Your task to perform on an android device: install app "WhatsApp Messenger" Image 0: 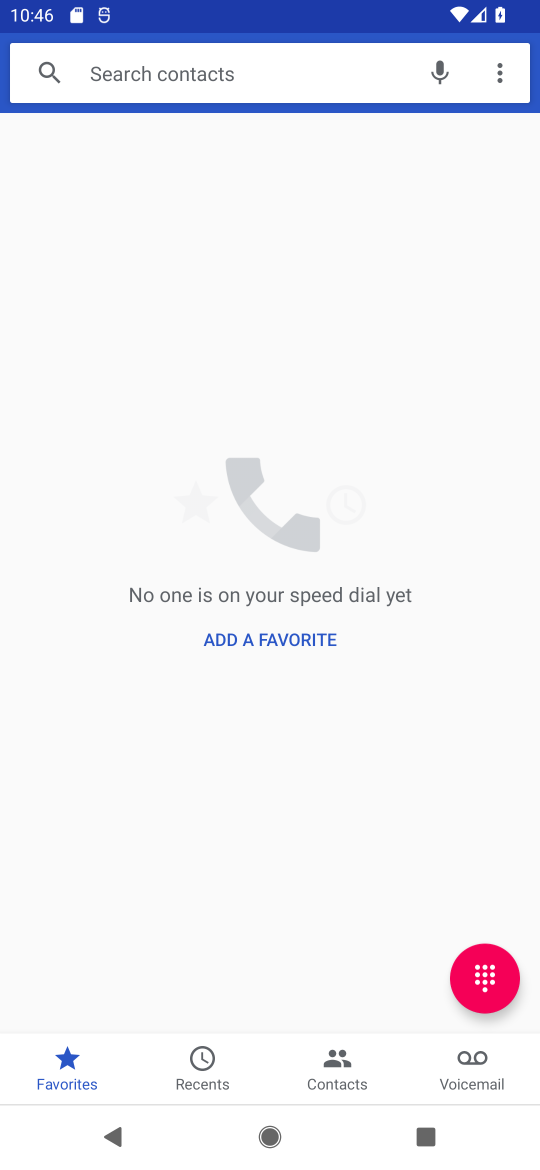
Step 0: press home button
Your task to perform on an android device: install app "WhatsApp Messenger" Image 1: 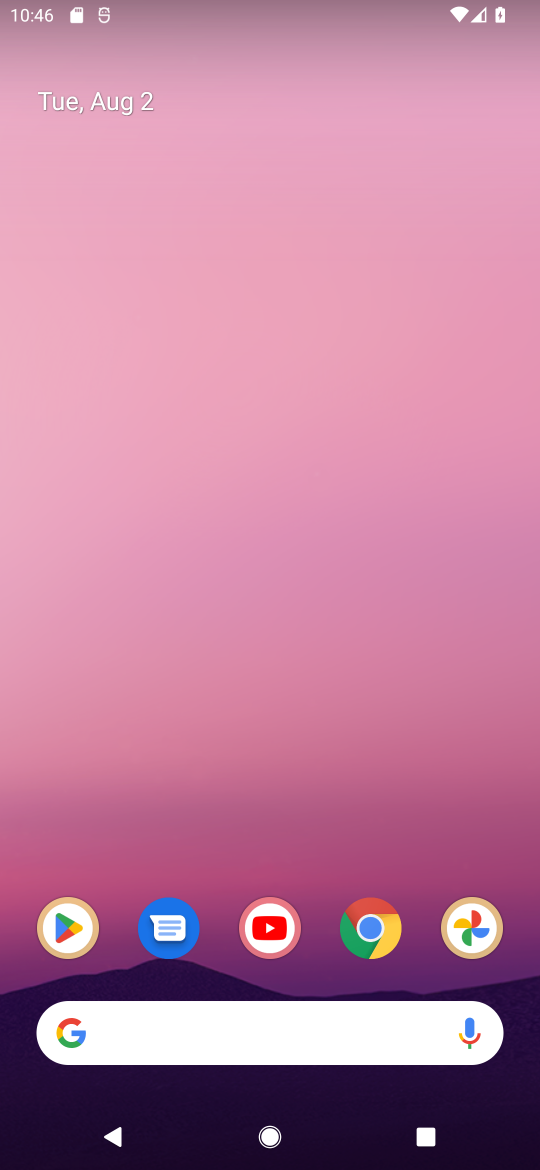
Step 1: click (61, 934)
Your task to perform on an android device: install app "WhatsApp Messenger" Image 2: 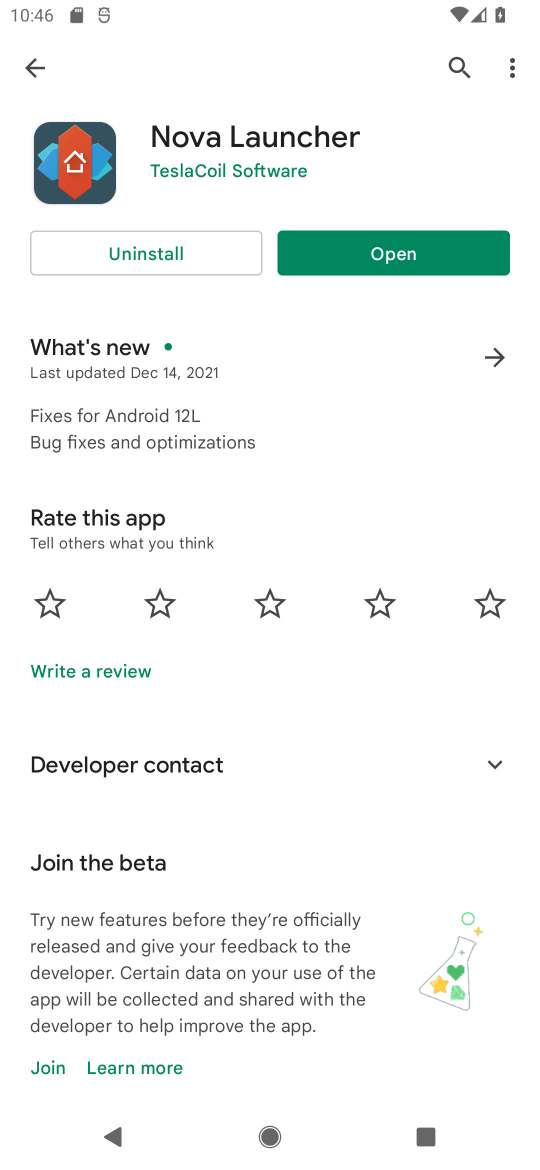
Step 2: click (463, 61)
Your task to perform on an android device: install app "WhatsApp Messenger" Image 3: 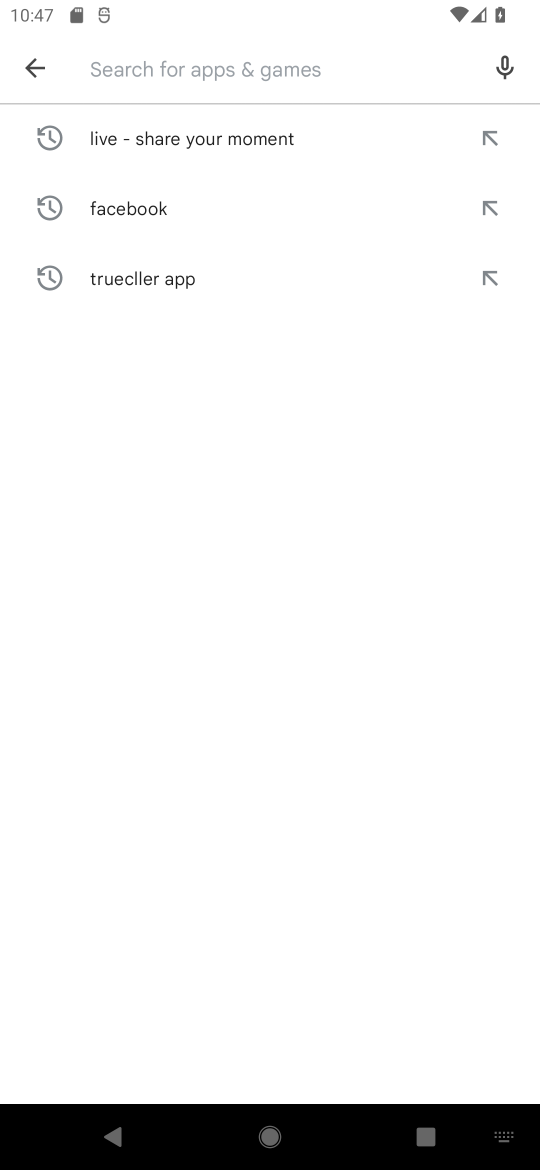
Step 3: type "whatsapp messenger"
Your task to perform on an android device: install app "WhatsApp Messenger" Image 4: 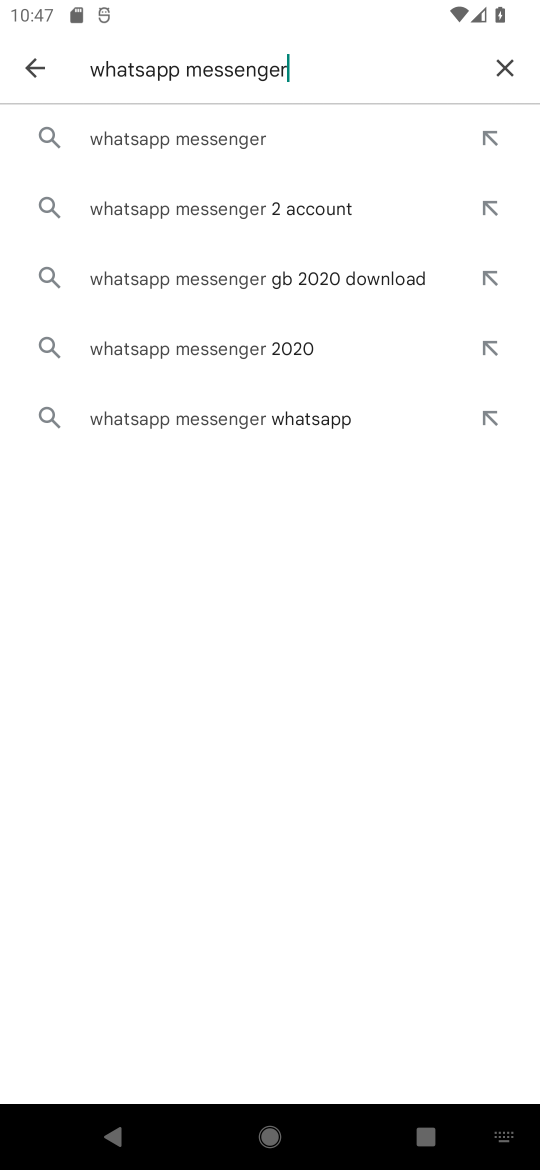
Step 4: click (290, 136)
Your task to perform on an android device: install app "WhatsApp Messenger" Image 5: 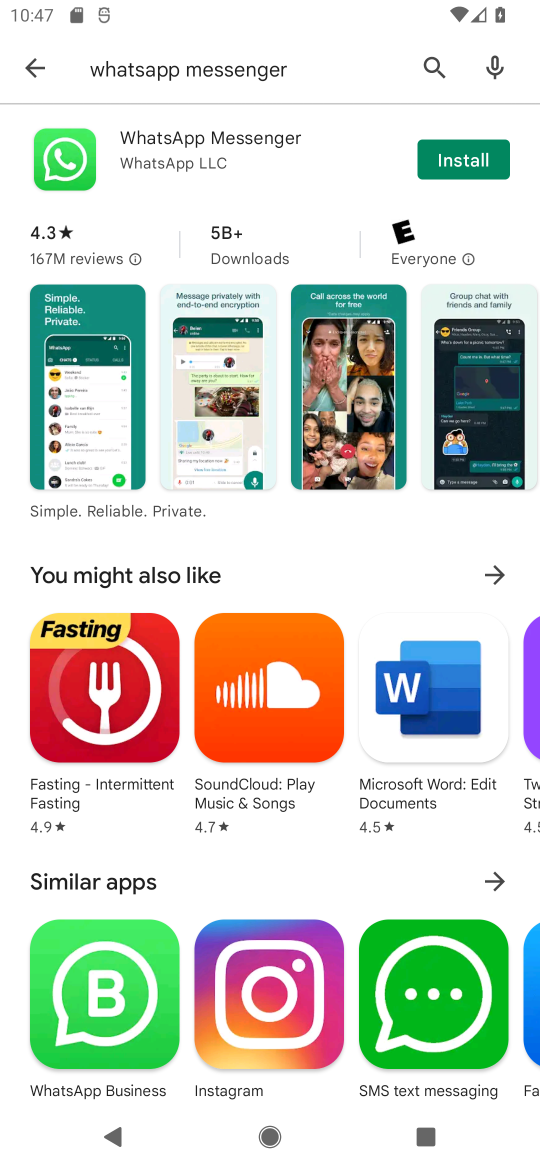
Step 5: click (258, 147)
Your task to perform on an android device: install app "WhatsApp Messenger" Image 6: 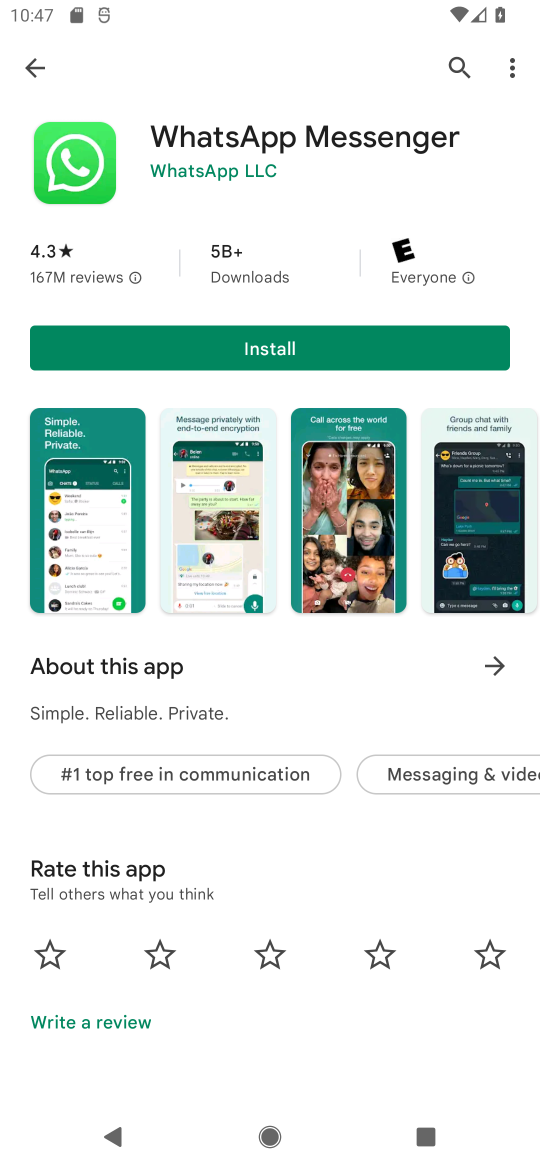
Step 6: click (375, 342)
Your task to perform on an android device: install app "WhatsApp Messenger" Image 7: 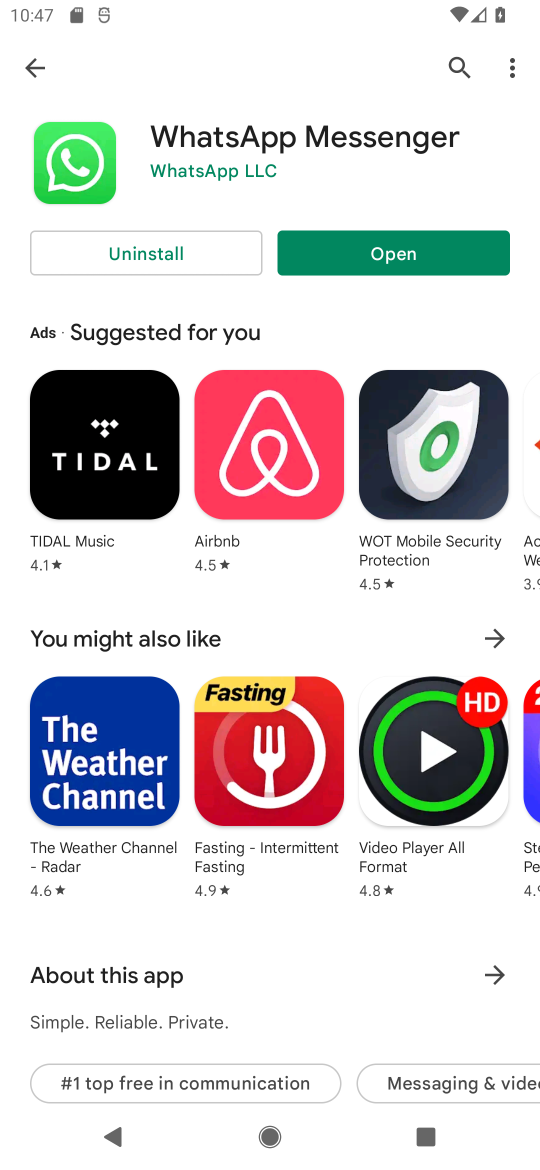
Step 7: task complete